Your task to perform on an android device: Open Youtube and go to the subscriptions tab Image 0: 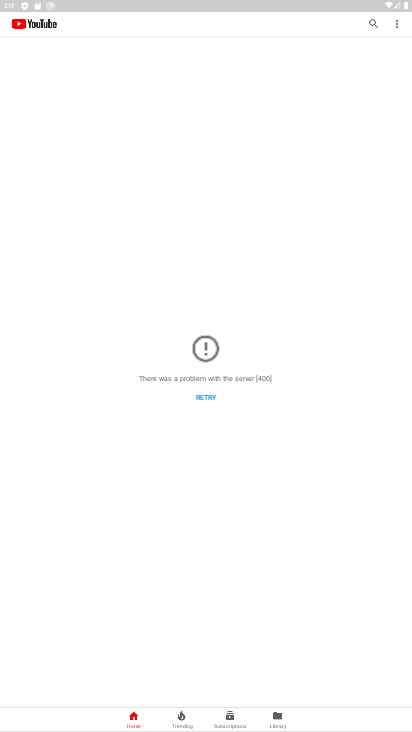
Step 0: press home button
Your task to perform on an android device: Open Youtube and go to the subscriptions tab Image 1: 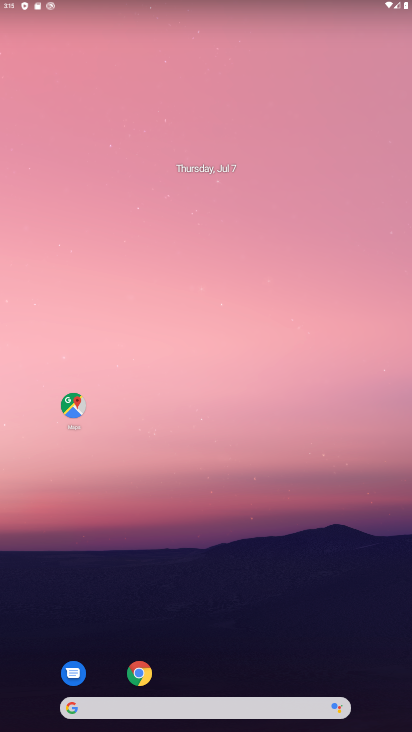
Step 1: drag from (296, 628) to (233, 154)
Your task to perform on an android device: Open Youtube and go to the subscriptions tab Image 2: 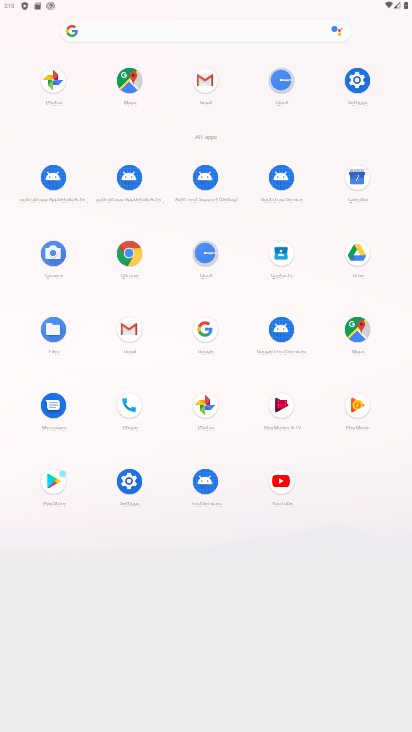
Step 2: click (282, 484)
Your task to perform on an android device: Open Youtube and go to the subscriptions tab Image 3: 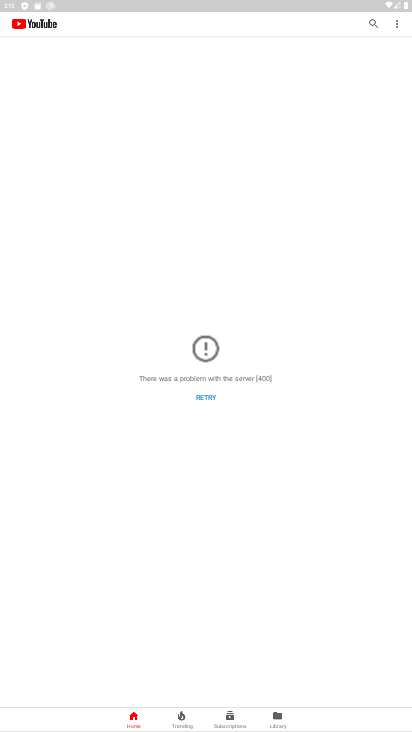
Step 3: click (229, 719)
Your task to perform on an android device: Open Youtube and go to the subscriptions tab Image 4: 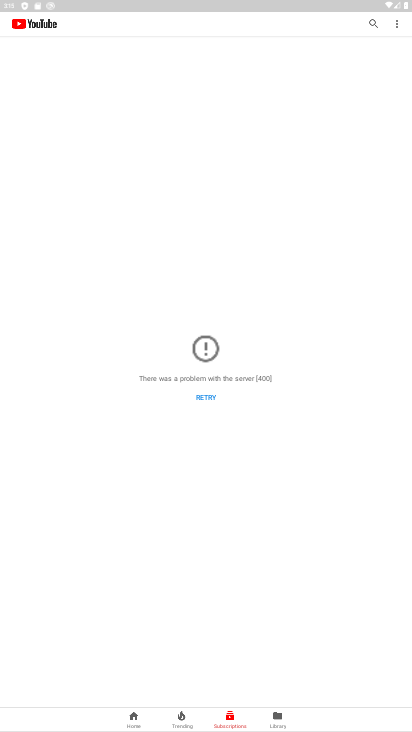
Step 4: task complete